Your task to perform on an android device: turn notification dots off Image 0: 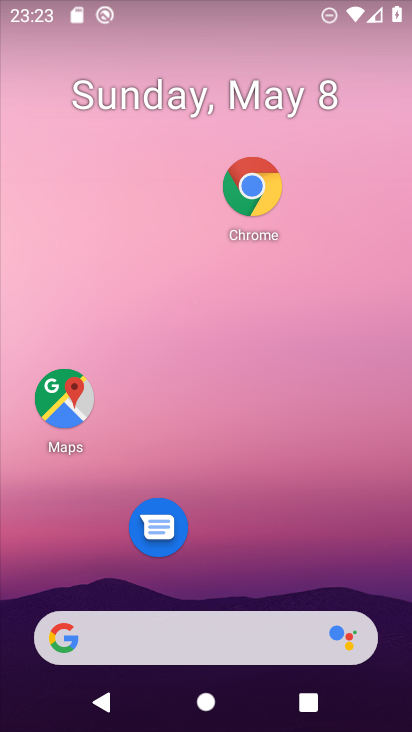
Step 0: drag from (312, 503) to (321, 274)
Your task to perform on an android device: turn notification dots off Image 1: 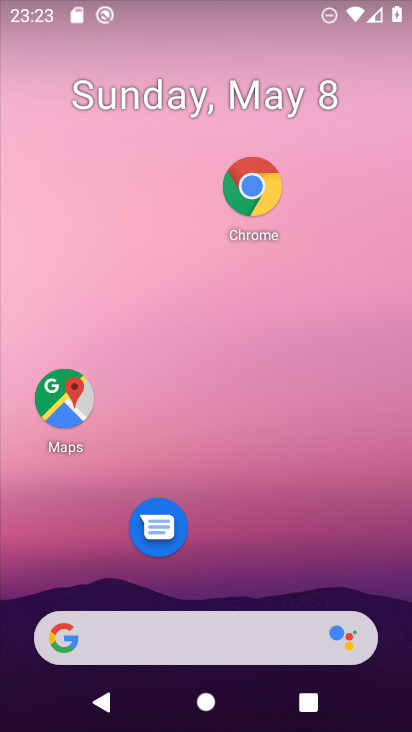
Step 1: drag from (294, 529) to (326, 252)
Your task to perform on an android device: turn notification dots off Image 2: 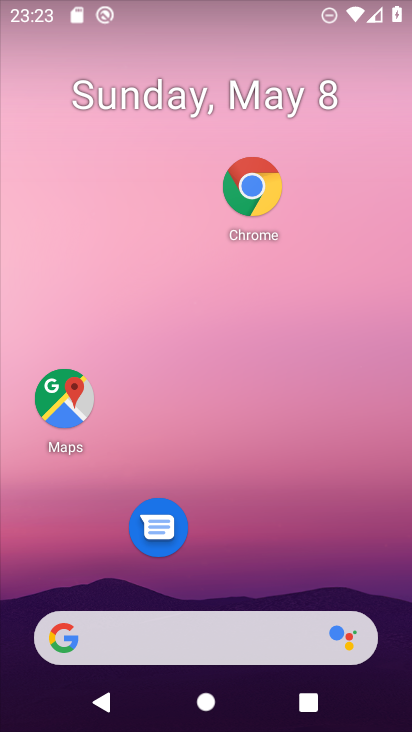
Step 2: drag from (322, 486) to (335, 281)
Your task to perform on an android device: turn notification dots off Image 3: 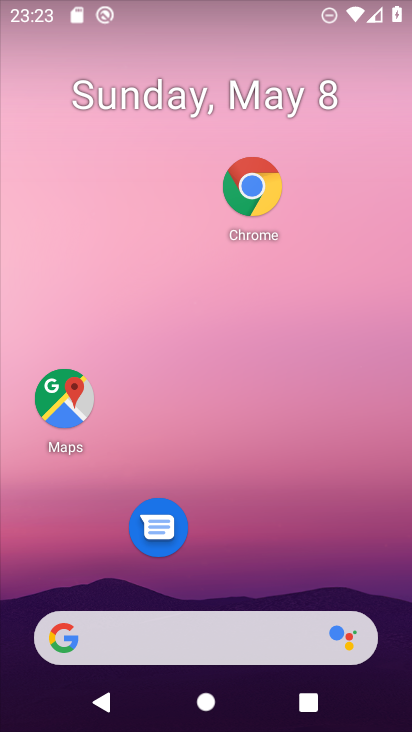
Step 3: drag from (308, 508) to (365, 209)
Your task to perform on an android device: turn notification dots off Image 4: 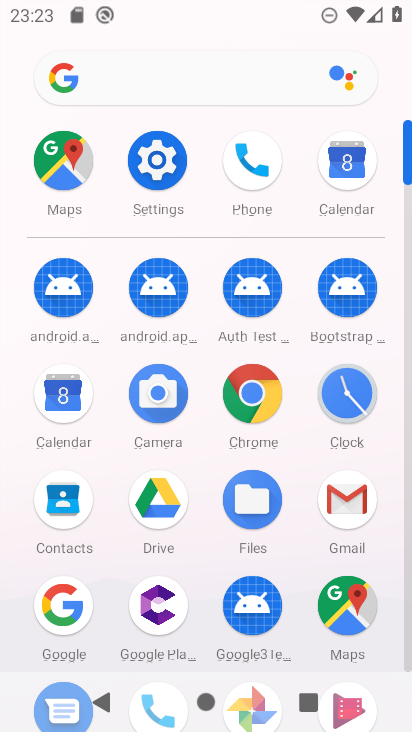
Step 4: click (157, 144)
Your task to perform on an android device: turn notification dots off Image 5: 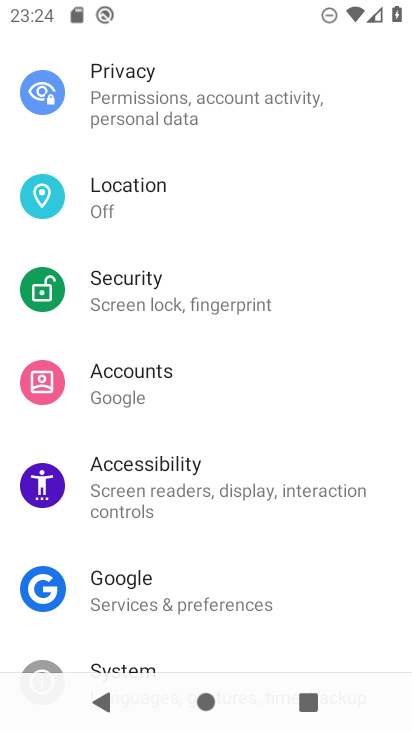
Step 5: drag from (229, 129) to (241, 693)
Your task to perform on an android device: turn notification dots off Image 6: 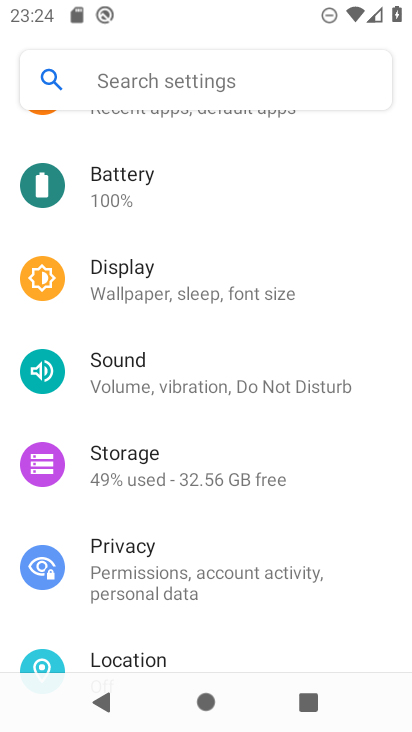
Step 6: click (186, 72)
Your task to perform on an android device: turn notification dots off Image 7: 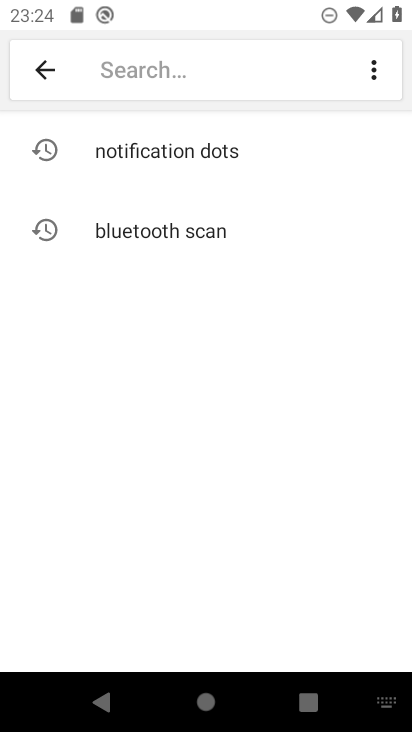
Step 7: click (173, 166)
Your task to perform on an android device: turn notification dots off Image 8: 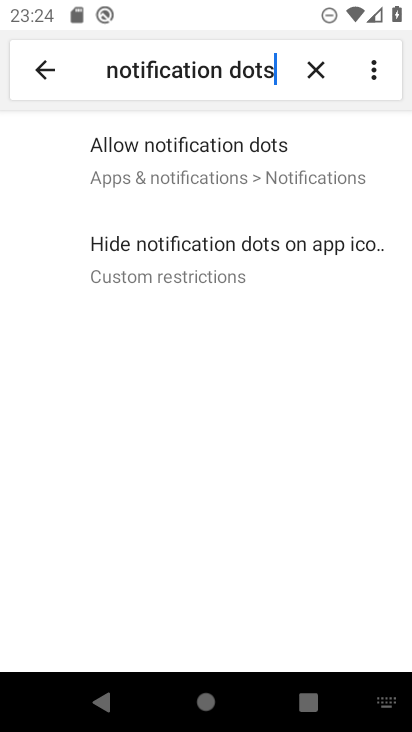
Step 8: click (240, 160)
Your task to perform on an android device: turn notification dots off Image 9: 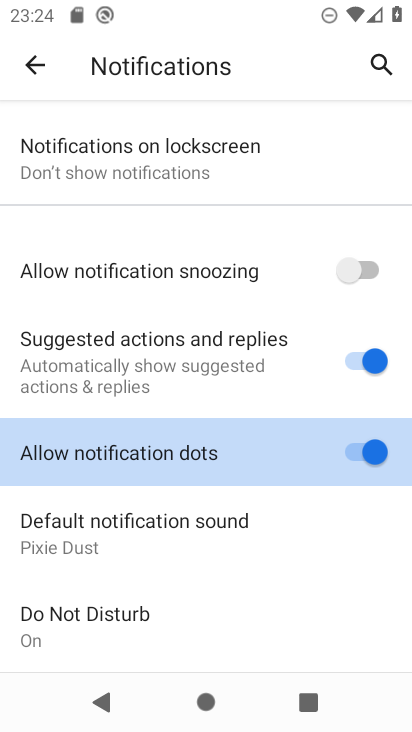
Step 9: click (363, 455)
Your task to perform on an android device: turn notification dots off Image 10: 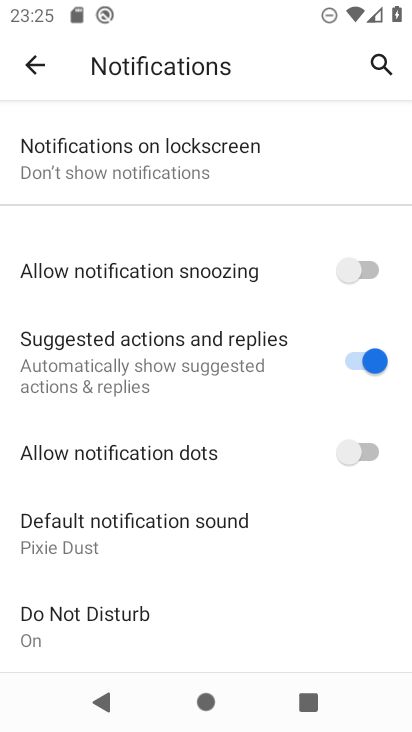
Step 10: task complete